Your task to perform on an android device: Show me popular games on the Play Store Image 0: 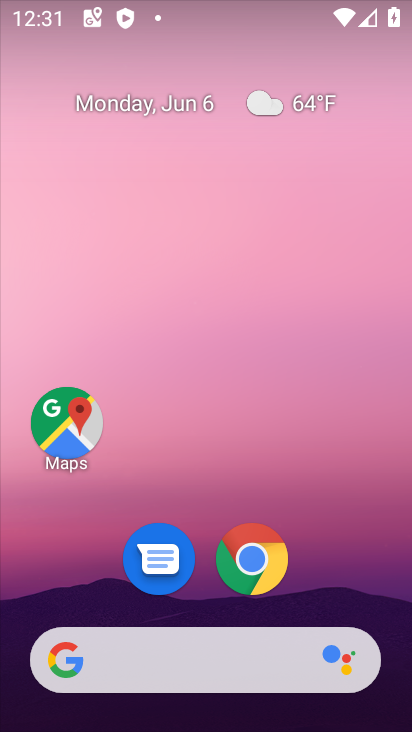
Step 0: drag from (255, 711) to (324, 206)
Your task to perform on an android device: Show me popular games on the Play Store Image 1: 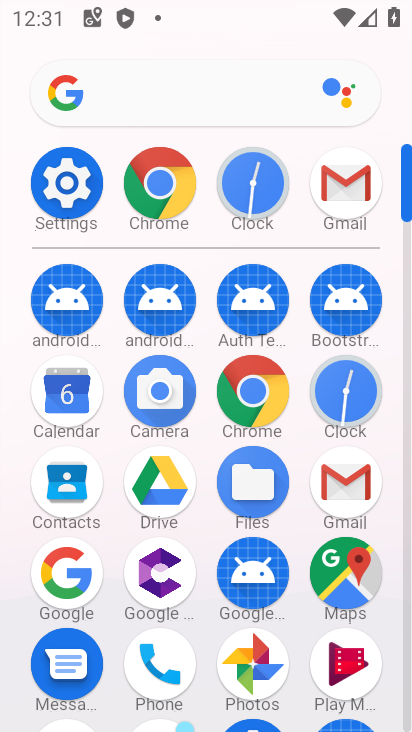
Step 1: drag from (200, 525) to (205, 394)
Your task to perform on an android device: Show me popular games on the Play Store Image 2: 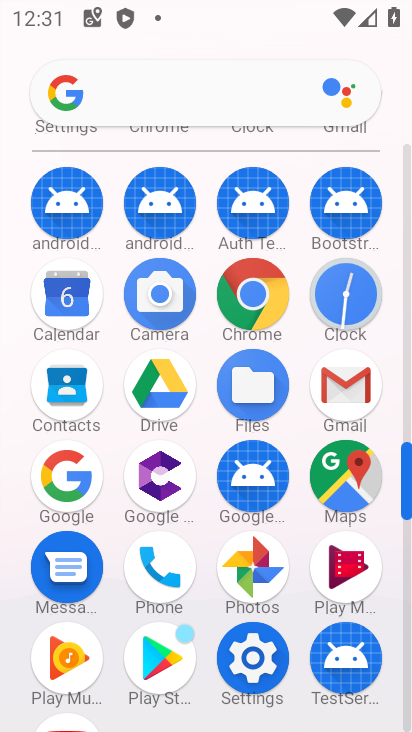
Step 2: click (166, 641)
Your task to perform on an android device: Show me popular games on the Play Store Image 3: 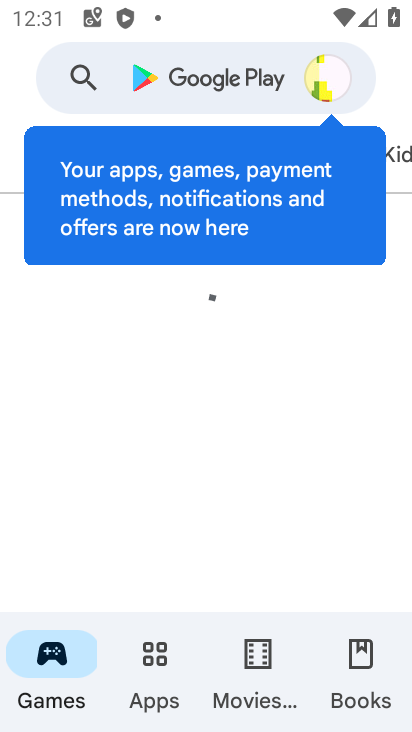
Step 3: click (233, 92)
Your task to perform on an android device: Show me popular games on the Play Store Image 4: 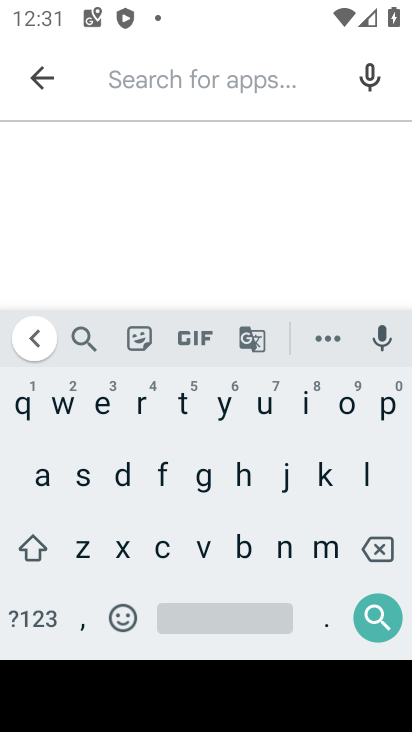
Step 4: click (231, 91)
Your task to perform on an android device: Show me popular games on the Play Store Image 5: 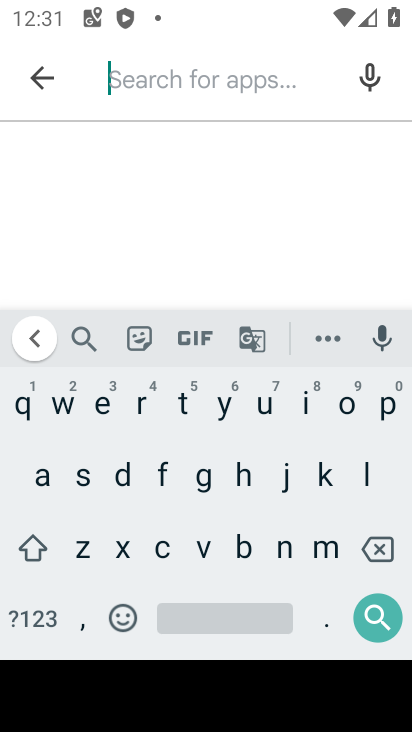
Step 5: click (380, 405)
Your task to perform on an android device: Show me popular games on the Play Store Image 6: 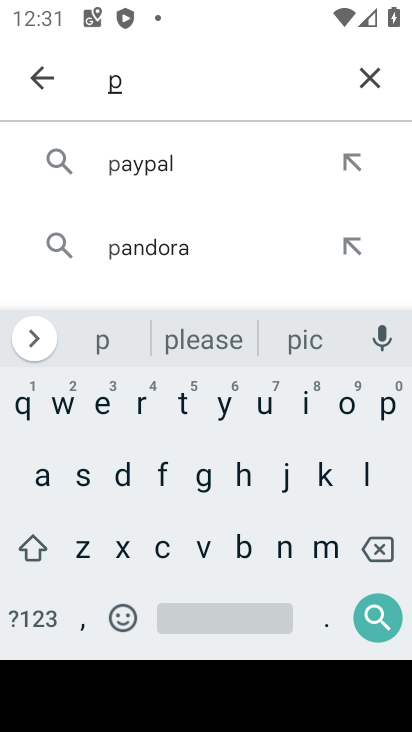
Step 6: click (339, 407)
Your task to perform on an android device: Show me popular games on the Play Store Image 7: 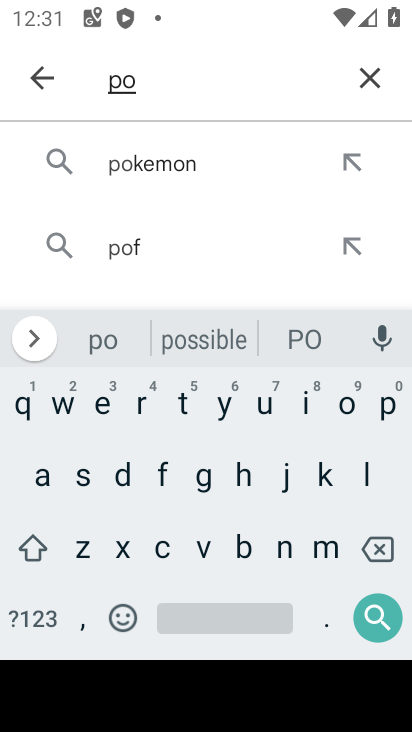
Step 7: click (385, 407)
Your task to perform on an android device: Show me popular games on the Play Store Image 8: 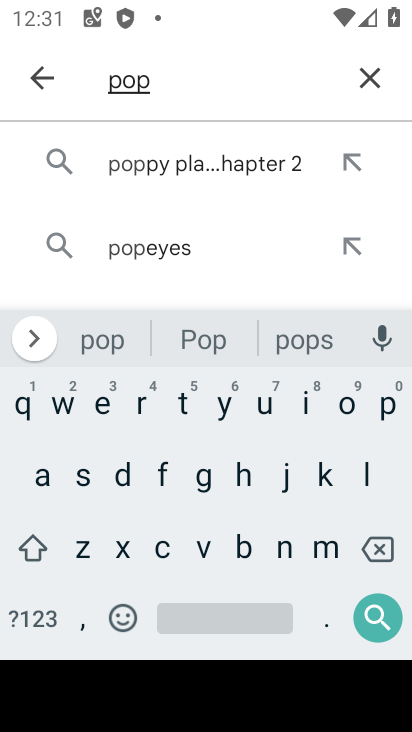
Step 8: click (255, 401)
Your task to perform on an android device: Show me popular games on the Play Store Image 9: 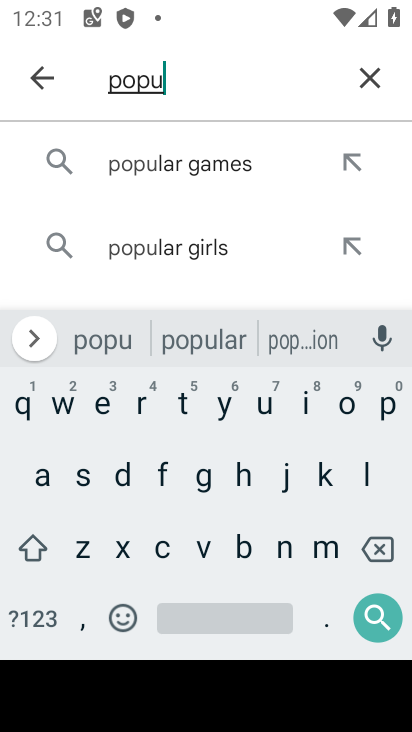
Step 9: click (233, 340)
Your task to perform on an android device: Show me popular games on the Play Store Image 10: 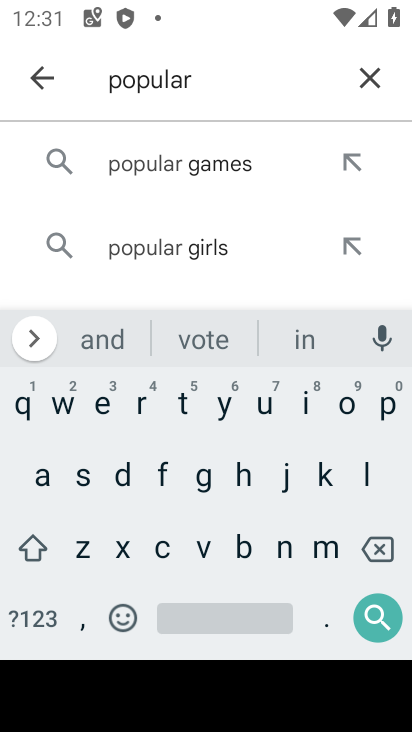
Step 10: click (152, 166)
Your task to perform on an android device: Show me popular games on the Play Store Image 11: 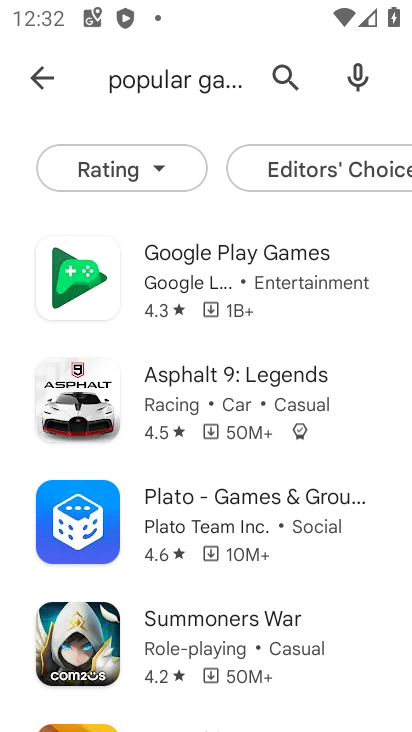
Step 11: task complete